Your task to perform on an android device: change your default location settings in chrome Image 0: 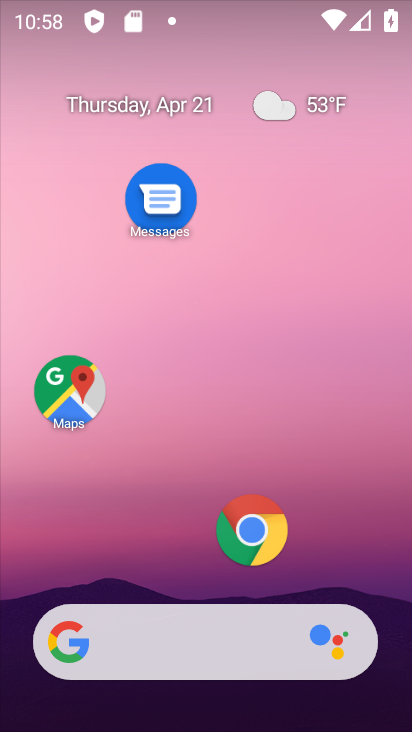
Step 0: click (248, 529)
Your task to perform on an android device: change your default location settings in chrome Image 1: 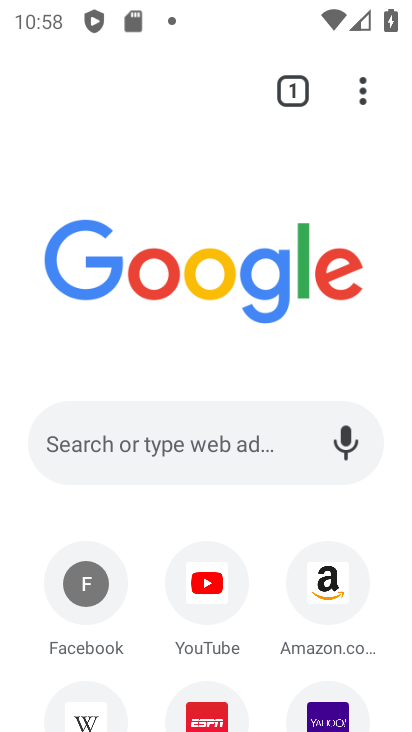
Step 1: drag from (364, 100) to (175, 525)
Your task to perform on an android device: change your default location settings in chrome Image 2: 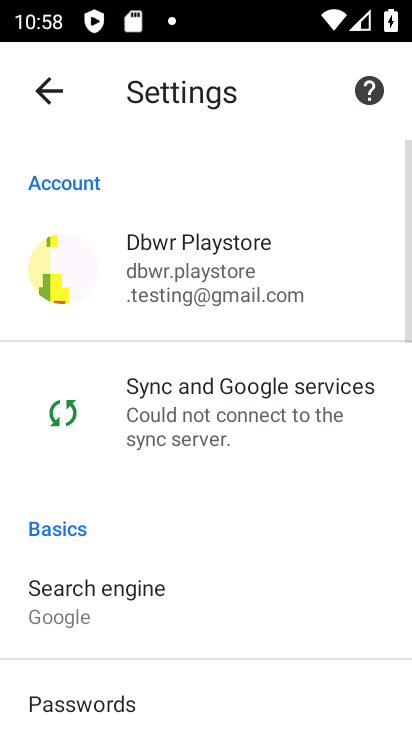
Step 2: drag from (194, 700) to (214, 414)
Your task to perform on an android device: change your default location settings in chrome Image 3: 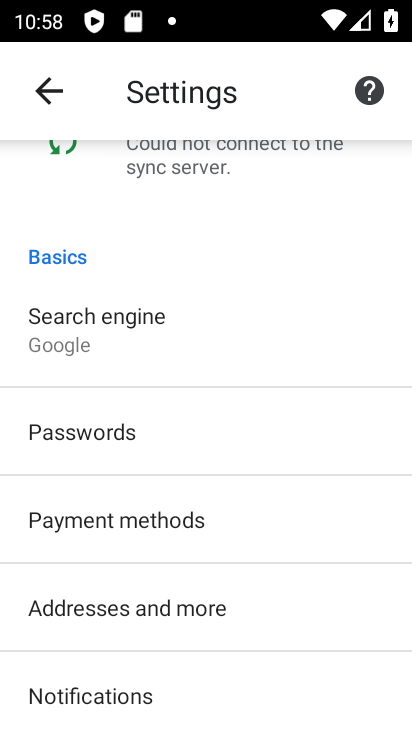
Step 3: drag from (176, 652) to (185, 488)
Your task to perform on an android device: change your default location settings in chrome Image 4: 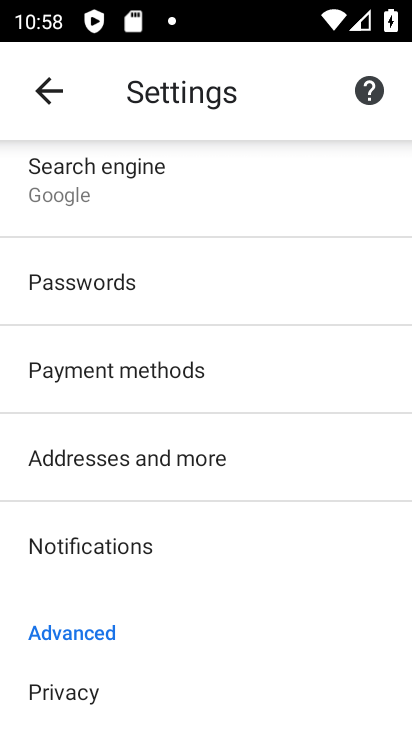
Step 4: drag from (159, 677) to (243, 315)
Your task to perform on an android device: change your default location settings in chrome Image 5: 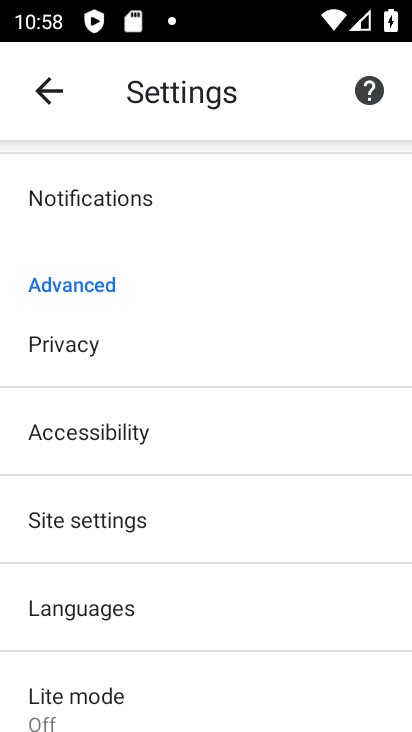
Step 5: click (107, 519)
Your task to perform on an android device: change your default location settings in chrome Image 6: 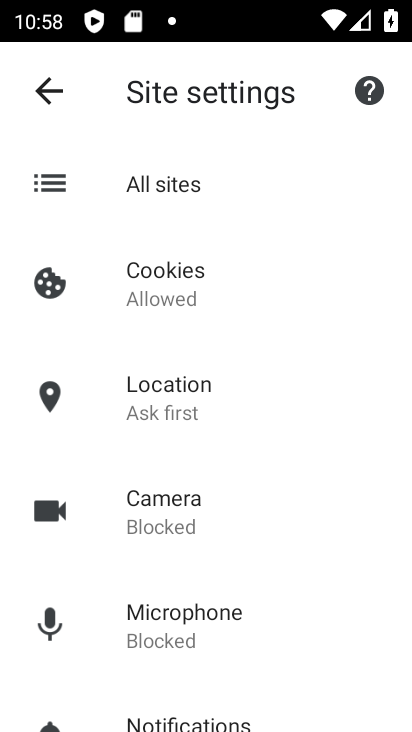
Step 6: click (164, 398)
Your task to perform on an android device: change your default location settings in chrome Image 7: 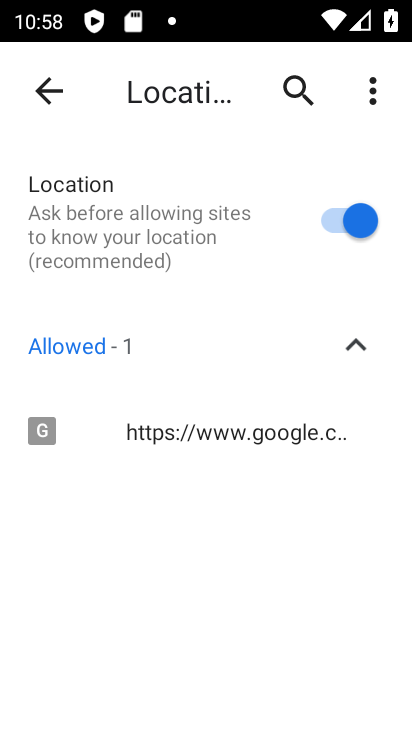
Step 7: click (334, 225)
Your task to perform on an android device: change your default location settings in chrome Image 8: 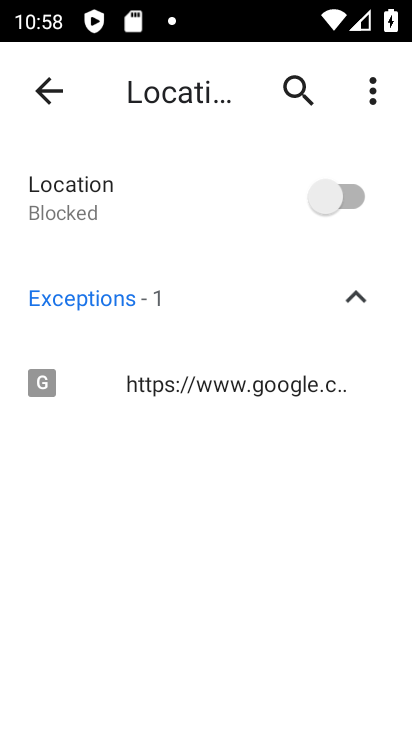
Step 8: task complete